Your task to perform on an android device: What is the capital of Norway? Image 0: 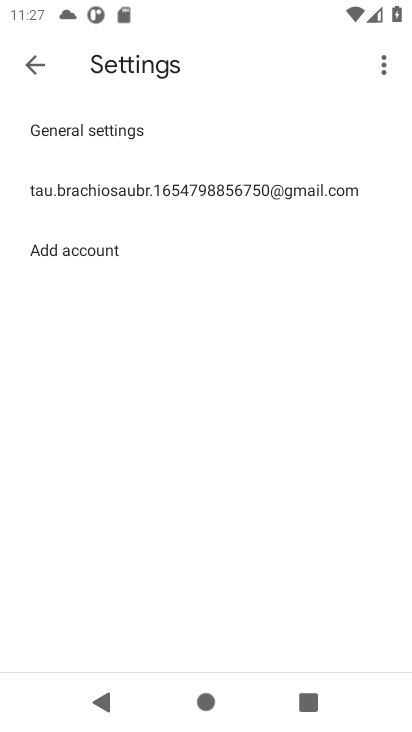
Step 0: press home button
Your task to perform on an android device: What is the capital of Norway? Image 1: 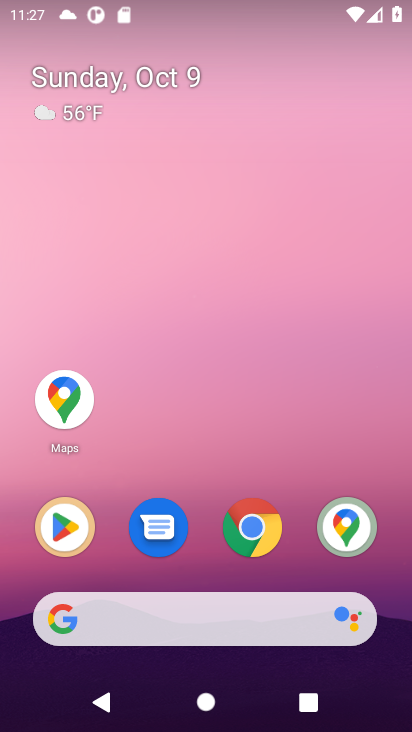
Step 1: click (254, 531)
Your task to perform on an android device: What is the capital of Norway? Image 2: 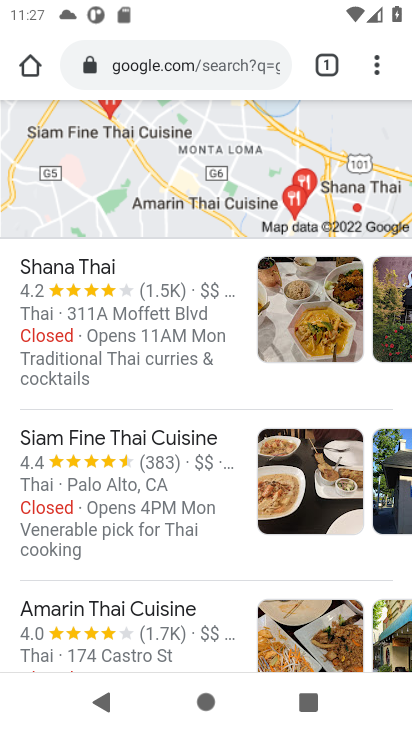
Step 2: click (159, 64)
Your task to perform on an android device: What is the capital of Norway? Image 3: 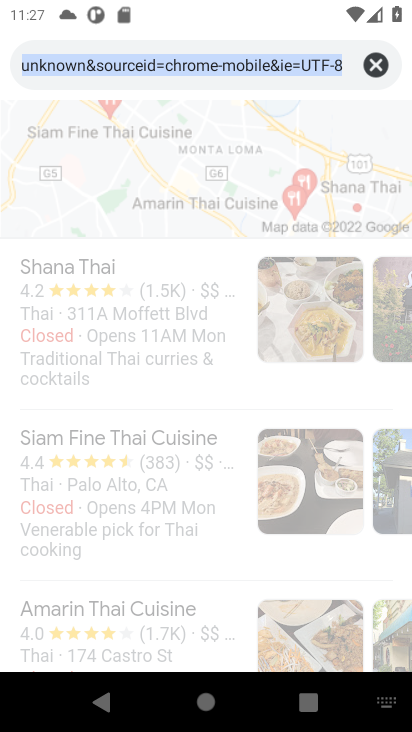
Step 3: click (384, 71)
Your task to perform on an android device: What is the capital of Norway? Image 4: 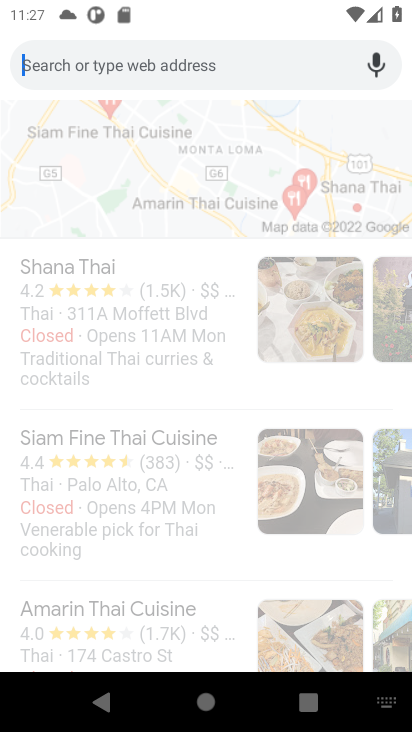
Step 4: type "What is the capital of Norway?"
Your task to perform on an android device: What is the capital of Norway? Image 5: 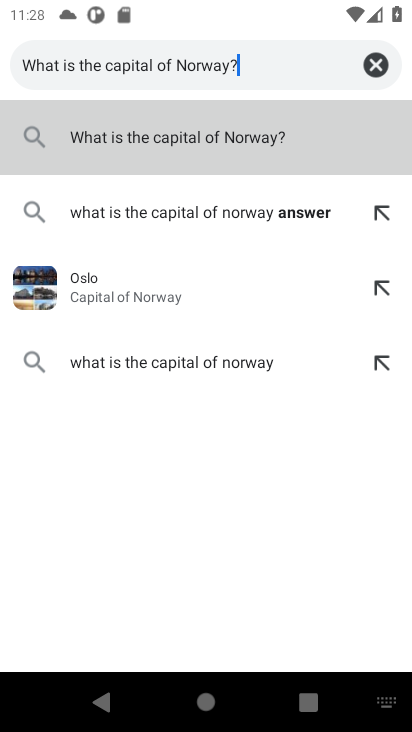
Step 5: click (201, 140)
Your task to perform on an android device: What is the capital of Norway? Image 6: 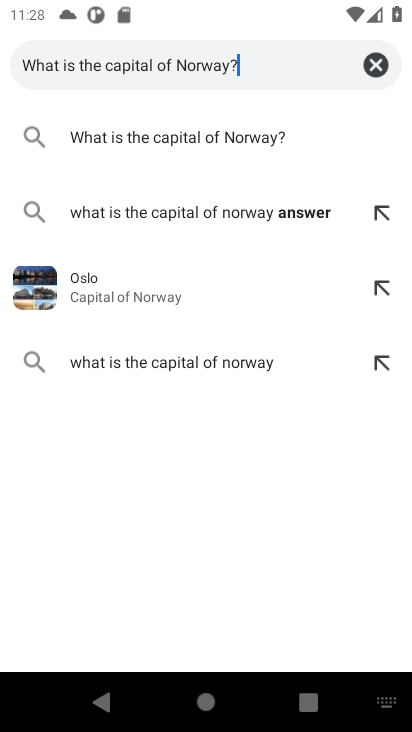
Step 6: click (196, 139)
Your task to perform on an android device: What is the capital of Norway? Image 7: 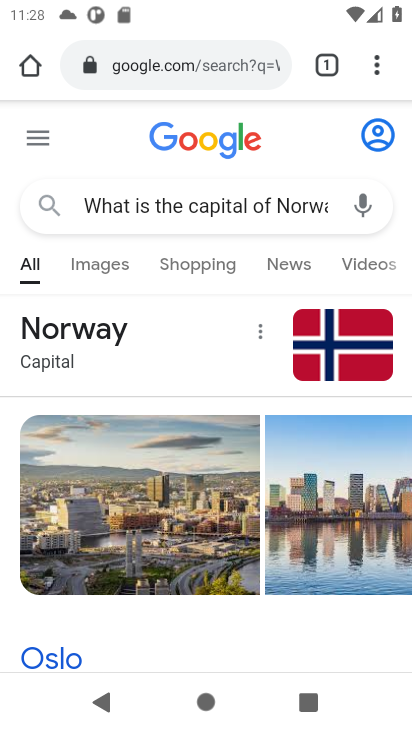
Step 7: click (28, 653)
Your task to perform on an android device: What is the capital of Norway? Image 8: 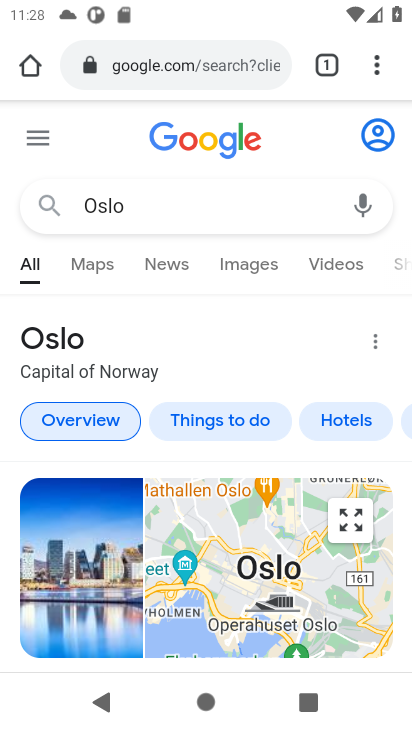
Step 8: task complete